Your task to perform on an android device: See recent photos Image 0: 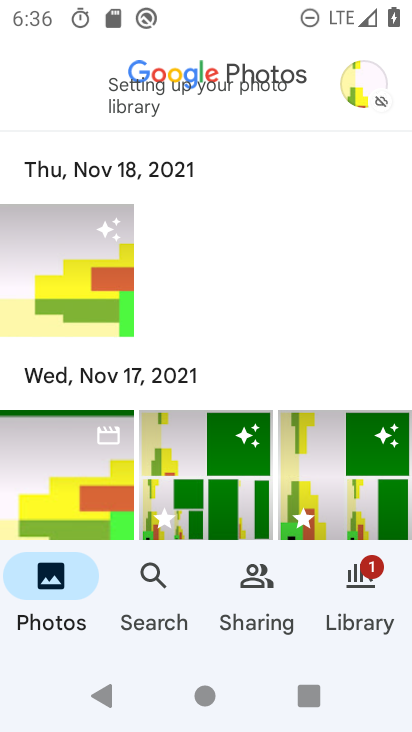
Step 0: click (50, 275)
Your task to perform on an android device: See recent photos Image 1: 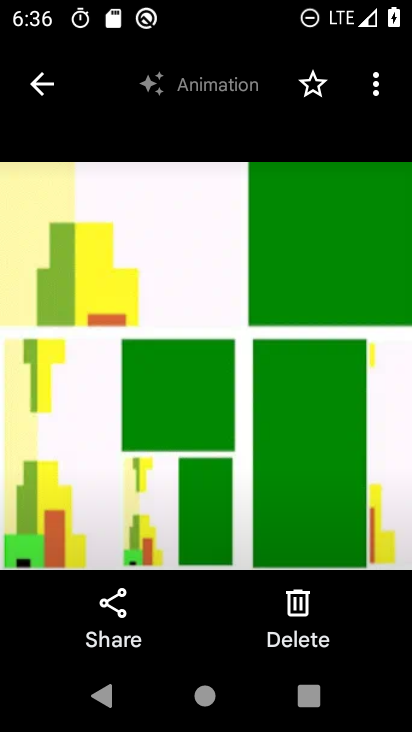
Step 1: task complete